Your task to perform on an android device: What's on my calendar today? Image 0: 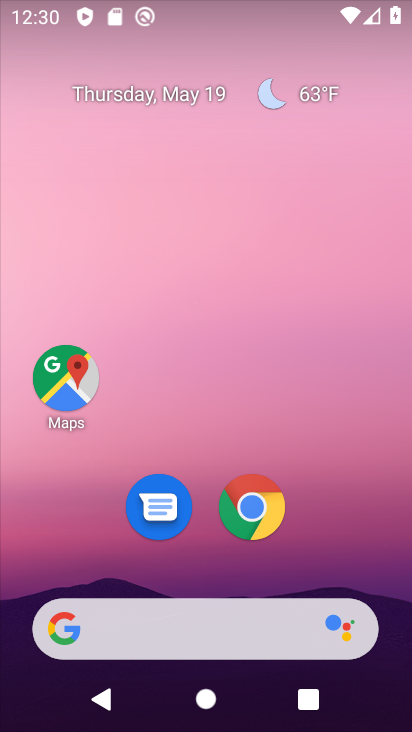
Step 0: drag from (199, 594) to (252, 194)
Your task to perform on an android device: What's on my calendar today? Image 1: 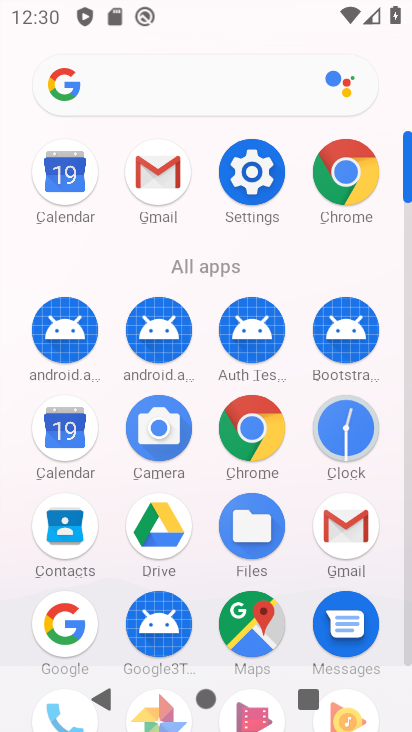
Step 1: click (68, 189)
Your task to perform on an android device: What's on my calendar today? Image 2: 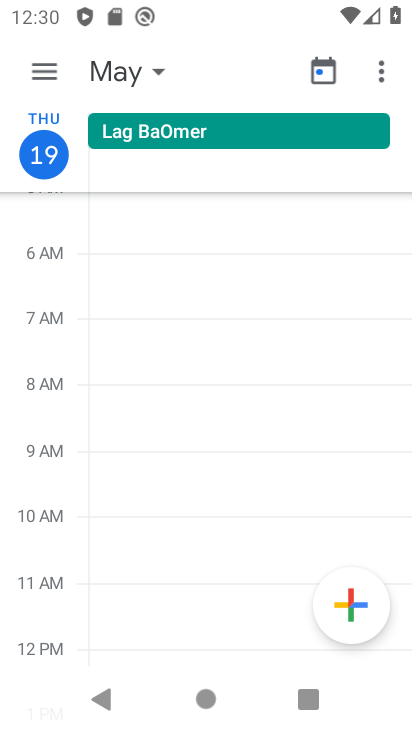
Step 2: task complete